Your task to perform on an android device: all mails in gmail Image 0: 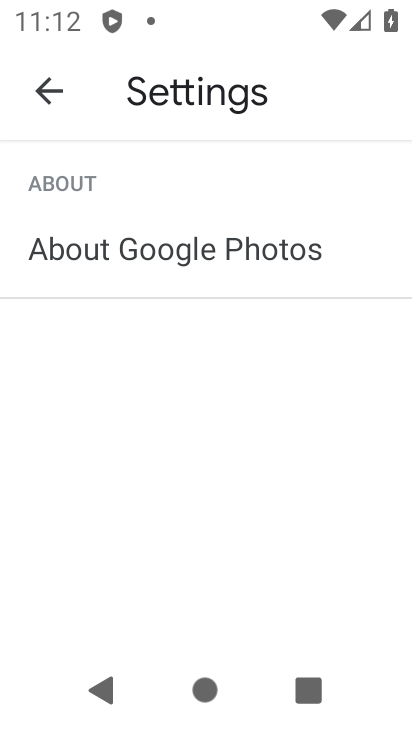
Step 0: click (54, 97)
Your task to perform on an android device: all mails in gmail Image 1: 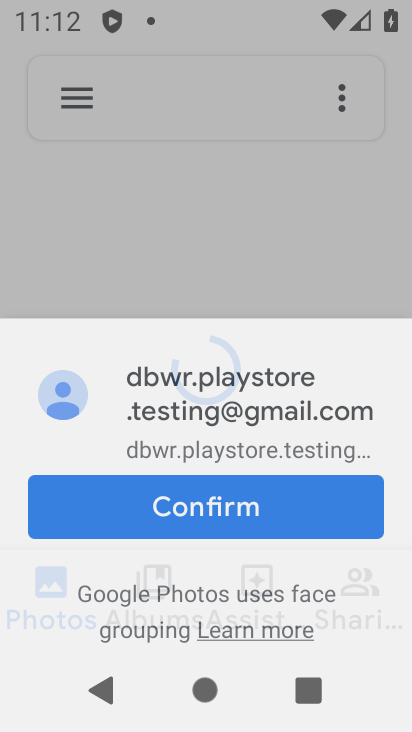
Step 1: press home button
Your task to perform on an android device: all mails in gmail Image 2: 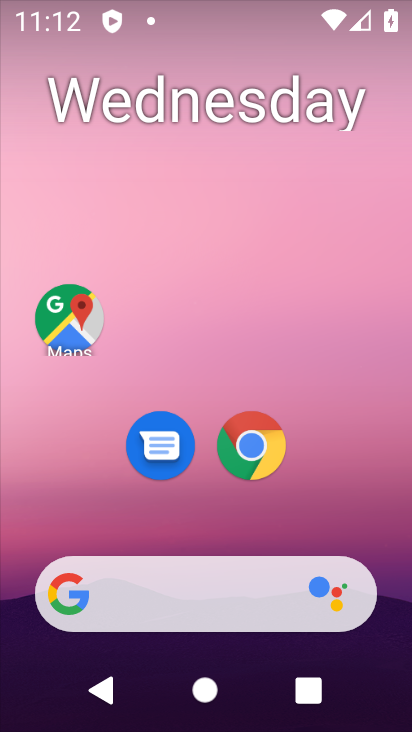
Step 2: drag from (305, 524) to (349, 5)
Your task to perform on an android device: all mails in gmail Image 3: 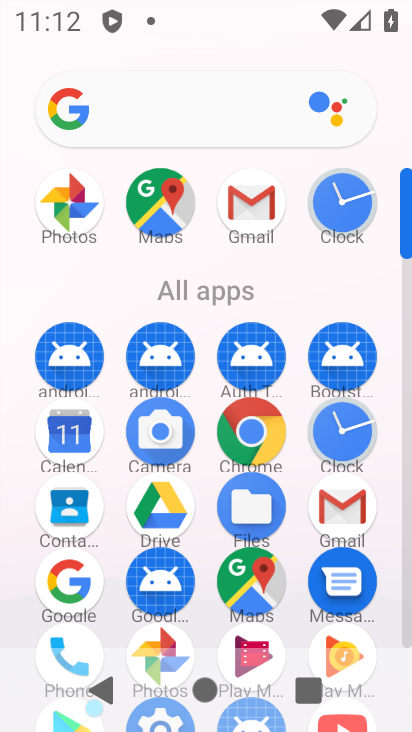
Step 3: click (264, 189)
Your task to perform on an android device: all mails in gmail Image 4: 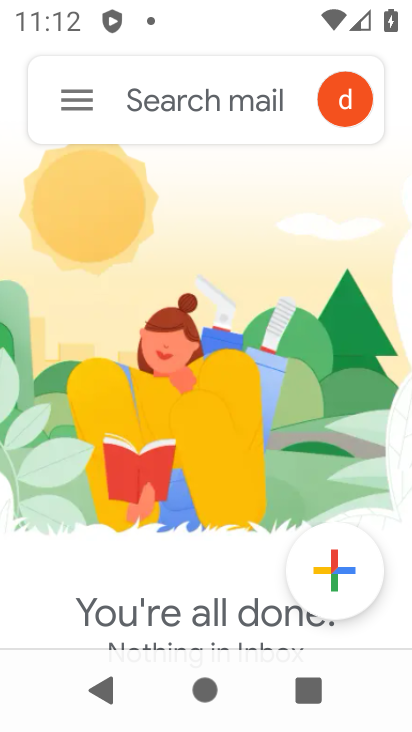
Step 4: click (83, 107)
Your task to perform on an android device: all mails in gmail Image 5: 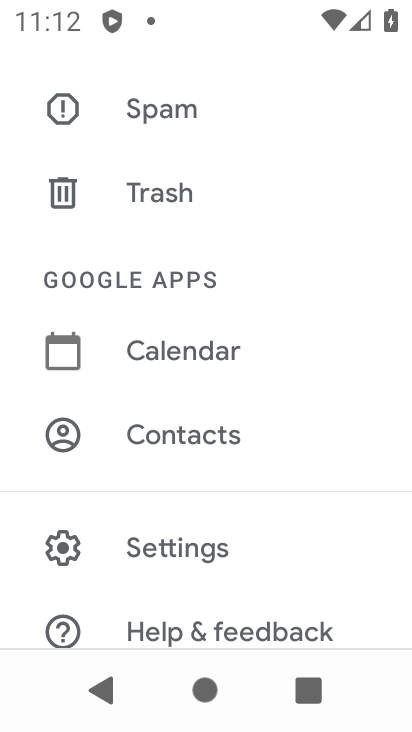
Step 5: drag from (207, 218) to (210, 729)
Your task to perform on an android device: all mails in gmail Image 6: 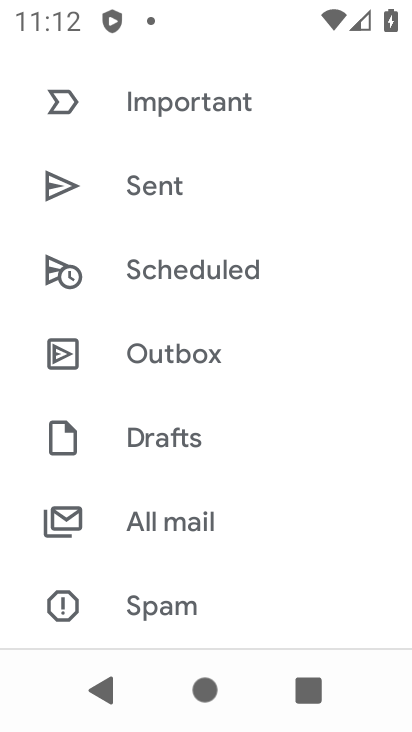
Step 6: click (196, 522)
Your task to perform on an android device: all mails in gmail Image 7: 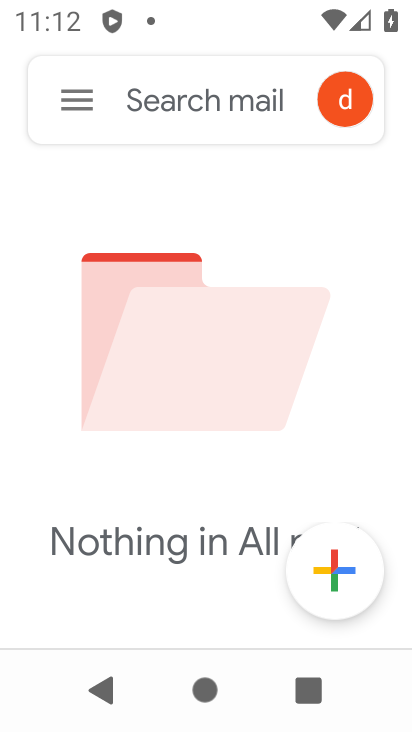
Step 7: task complete